Your task to perform on an android device: check google app version Image 0: 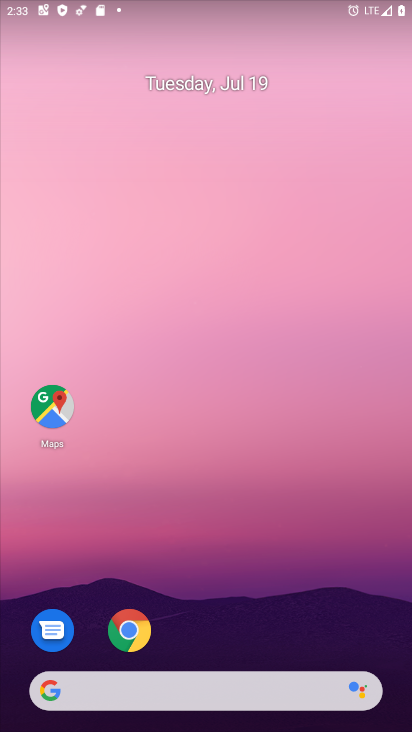
Step 0: press home button
Your task to perform on an android device: check google app version Image 1: 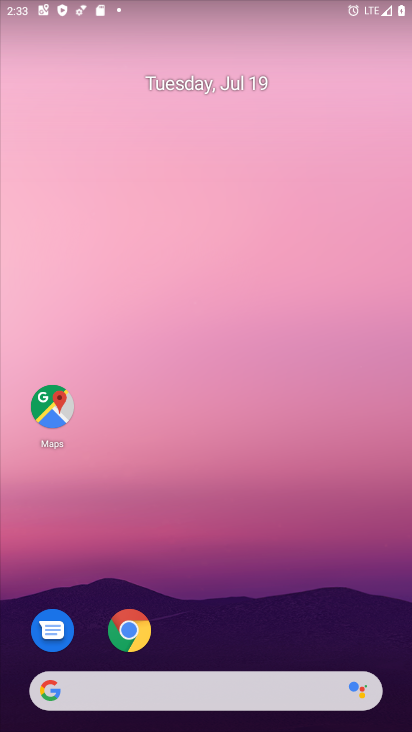
Step 1: drag from (210, 654) to (271, 29)
Your task to perform on an android device: check google app version Image 2: 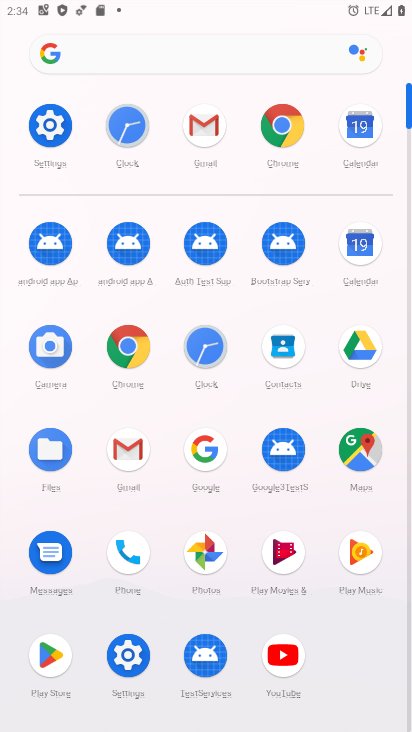
Step 2: click (202, 440)
Your task to perform on an android device: check google app version Image 3: 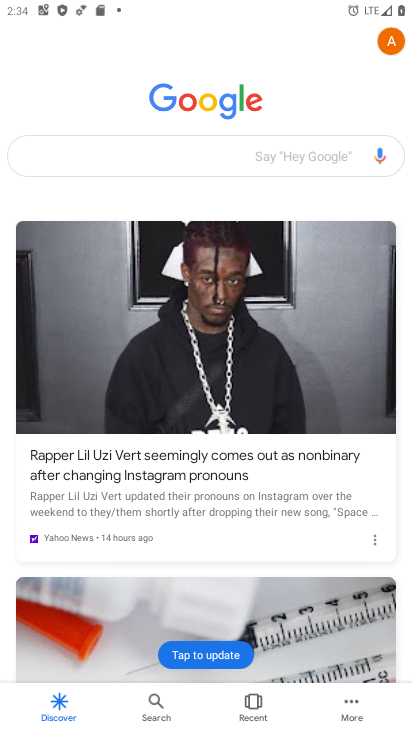
Step 3: click (387, 39)
Your task to perform on an android device: check google app version Image 4: 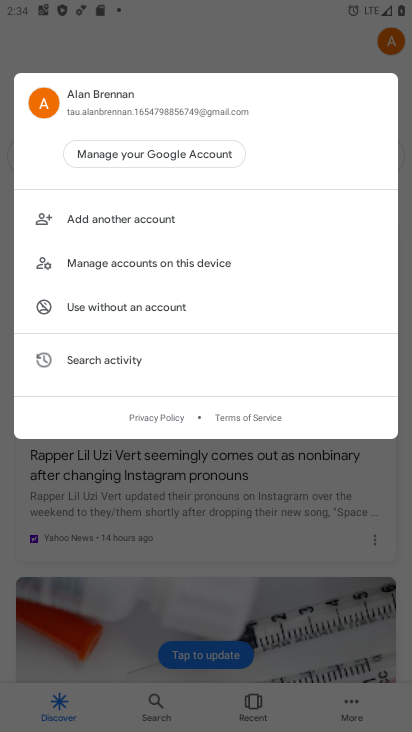
Step 4: click (202, 540)
Your task to perform on an android device: check google app version Image 5: 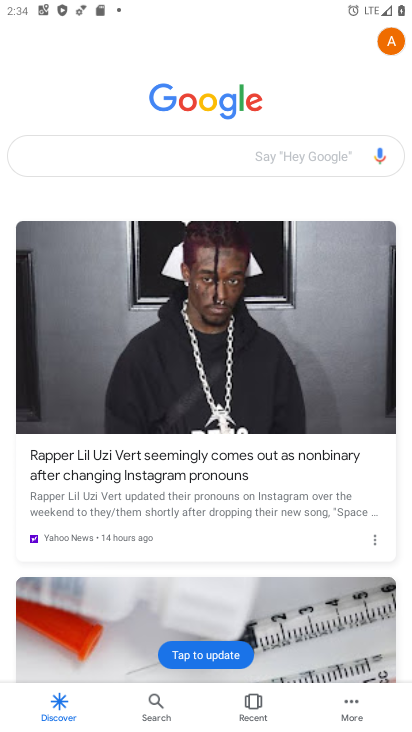
Step 5: click (352, 706)
Your task to perform on an android device: check google app version Image 6: 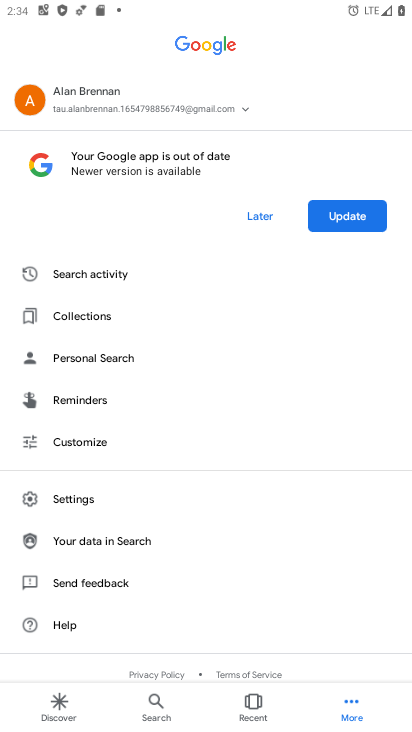
Step 6: click (103, 489)
Your task to perform on an android device: check google app version Image 7: 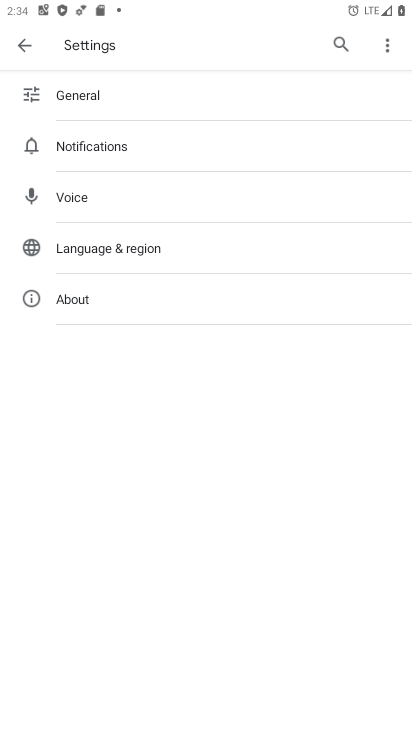
Step 7: click (101, 301)
Your task to perform on an android device: check google app version Image 8: 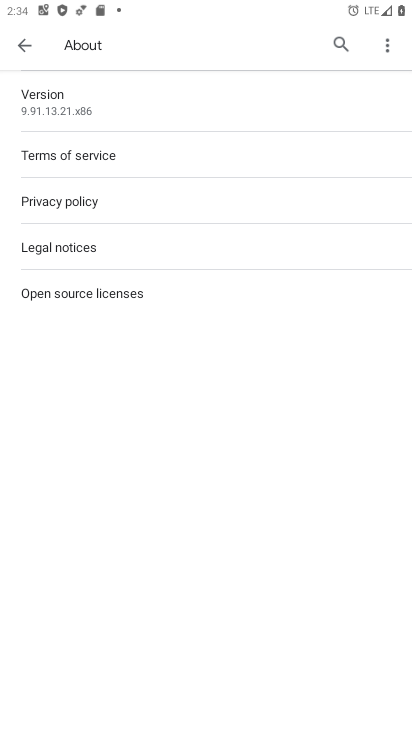
Step 8: task complete